Your task to perform on an android device: Search for Mexican restaurants on Maps Image 0: 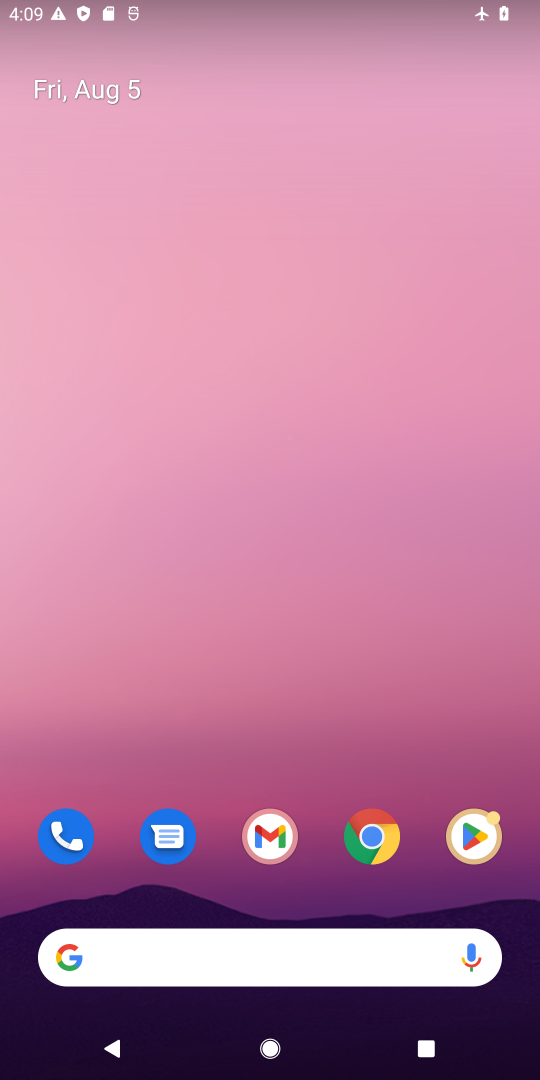
Step 0: drag from (348, 769) to (443, 1)
Your task to perform on an android device: Search for Mexican restaurants on Maps Image 1: 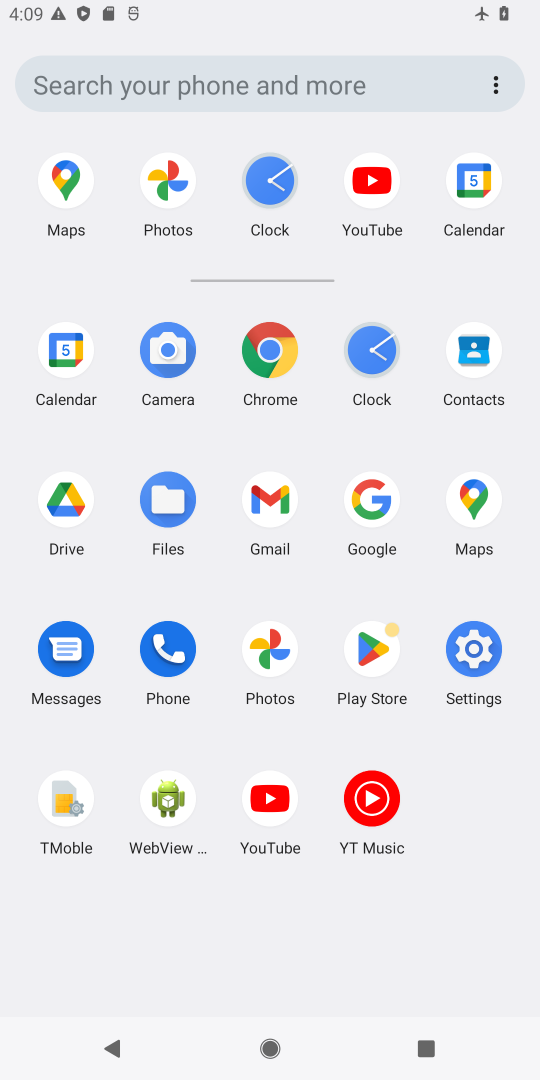
Step 1: click (470, 499)
Your task to perform on an android device: Search for Mexican restaurants on Maps Image 2: 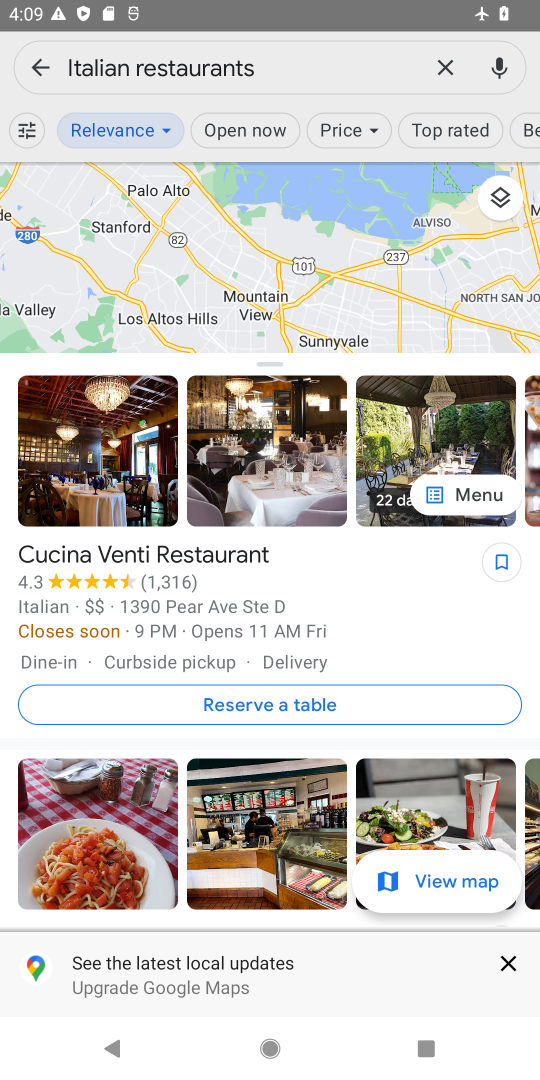
Step 2: click (34, 63)
Your task to perform on an android device: Search for Mexican restaurants on Maps Image 3: 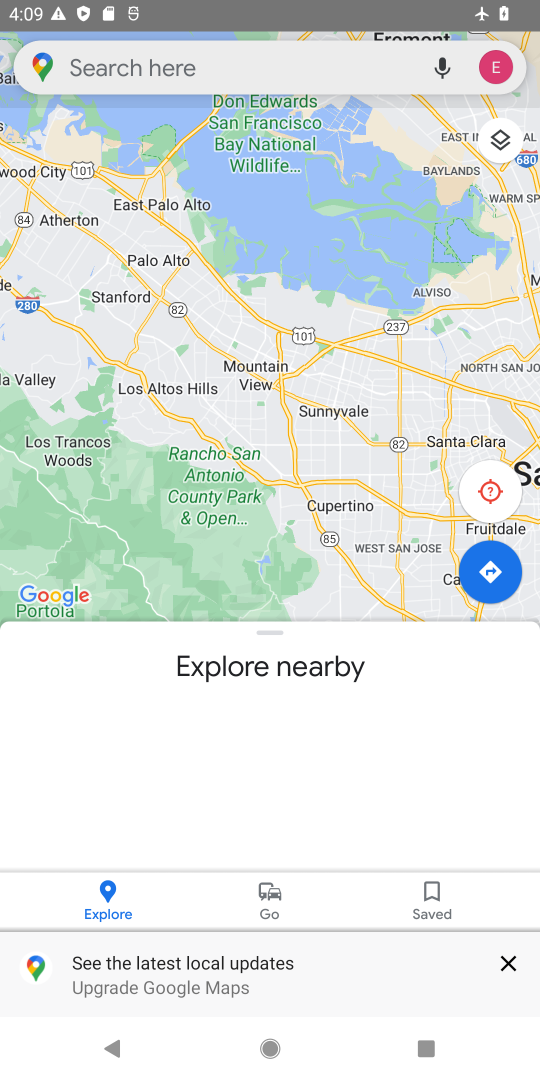
Step 3: click (234, 73)
Your task to perform on an android device: Search for Mexican restaurants on Maps Image 4: 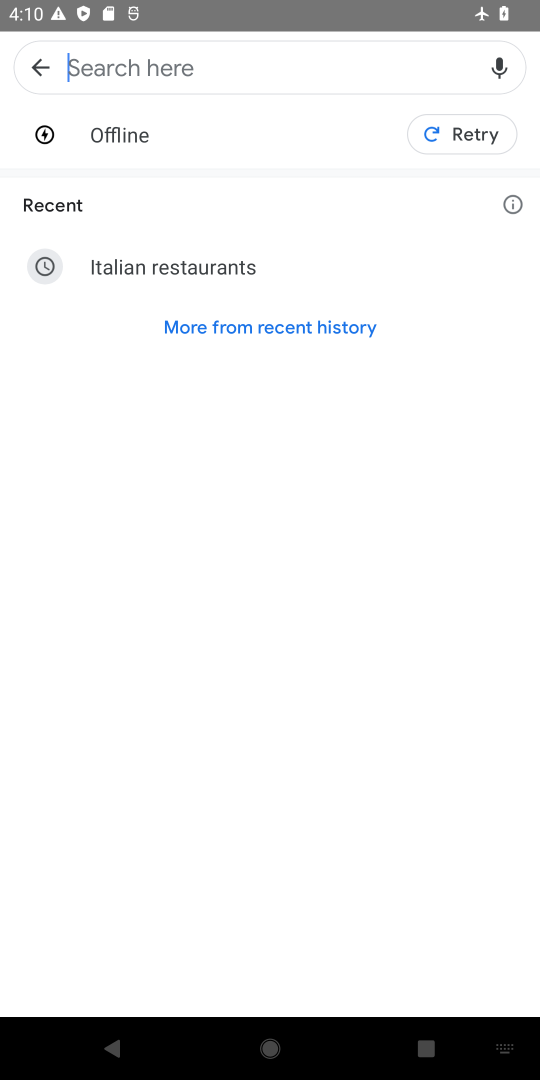
Step 4: type "Mexican restaurant"
Your task to perform on an android device: Search for Mexican restaurants on Maps Image 5: 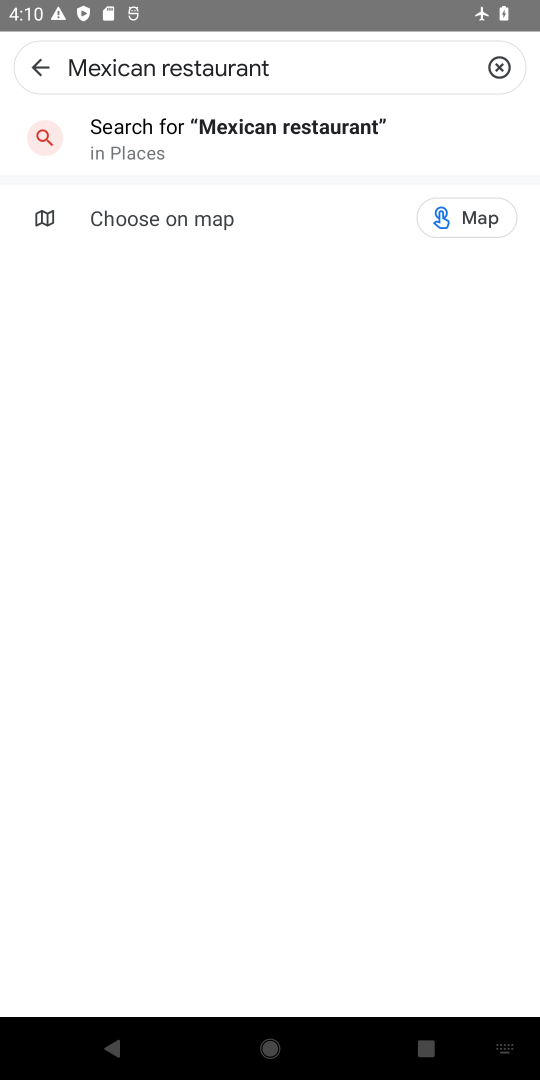
Step 5: click (295, 130)
Your task to perform on an android device: Search for Mexican restaurants on Maps Image 6: 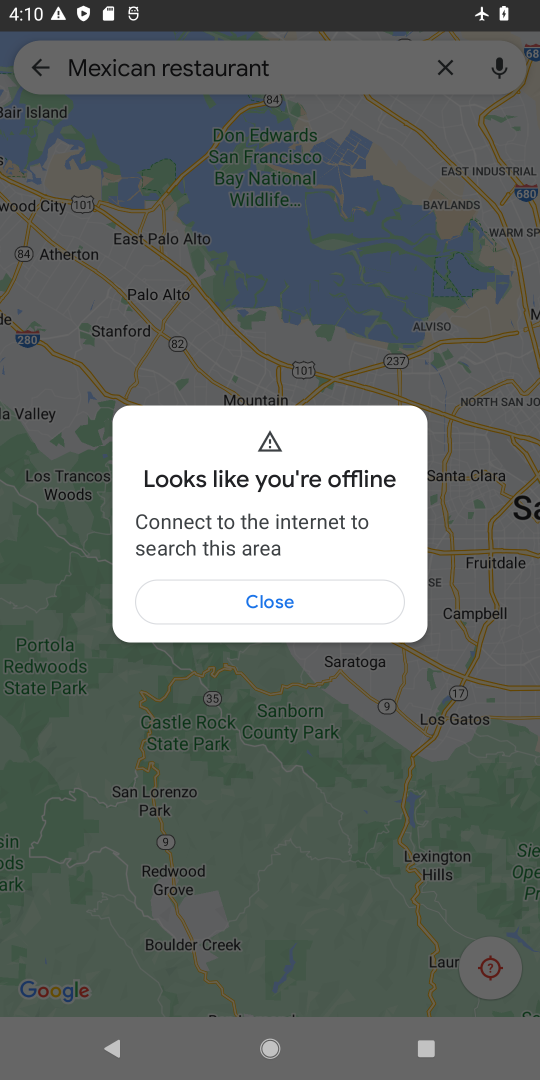
Step 6: click (248, 598)
Your task to perform on an android device: Search for Mexican restaurants on Maps Image 7: 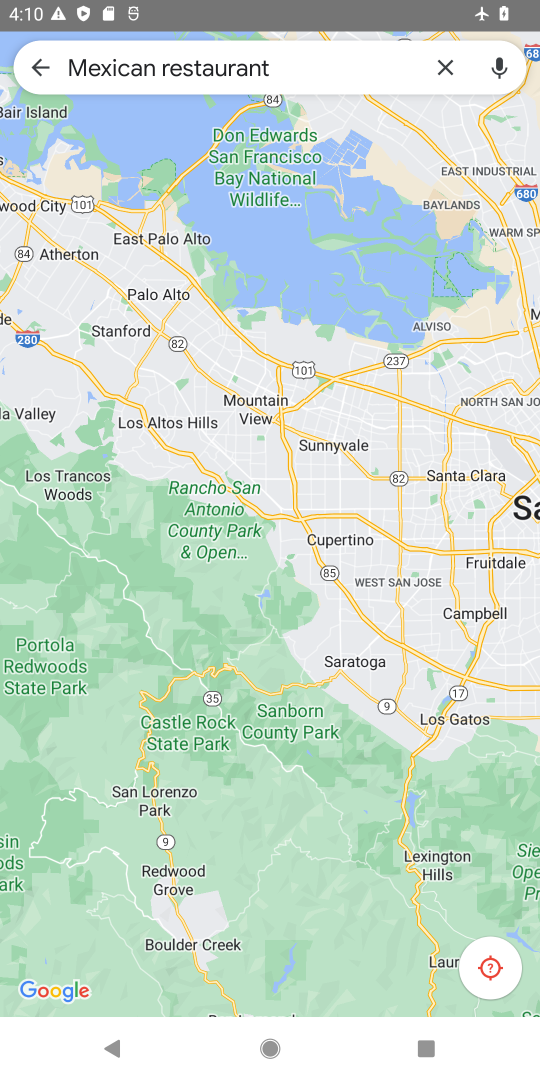
Step 7: task complete